Your task to perform on an android device: make emails show in primary in the gmail app Image 0: 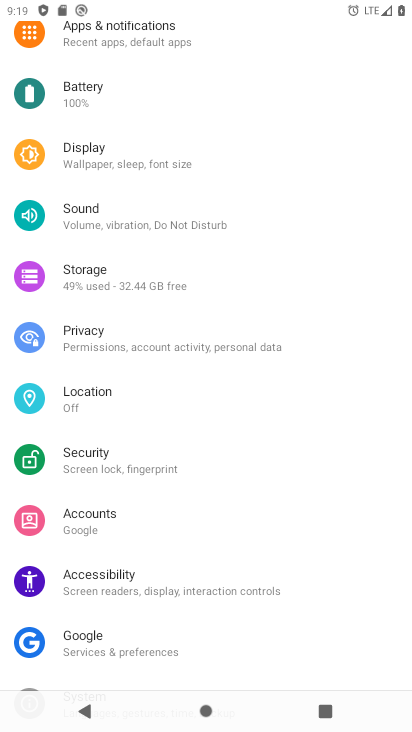
Step 0: press home button
Your task to perform on an android device: make emails show in primary in the gmail app Image 1: 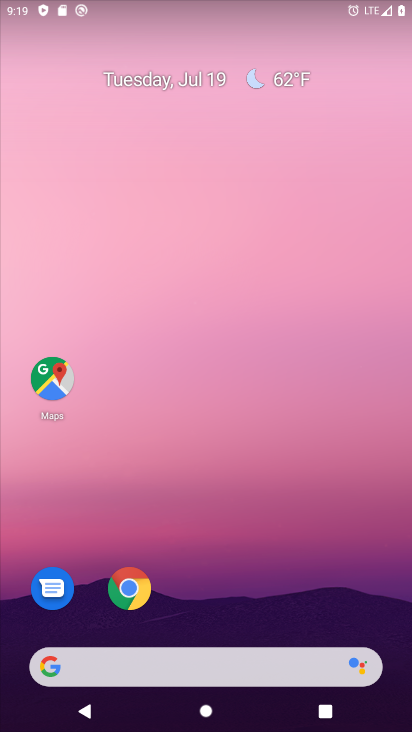
Step 1: drag from (386, 387) to (385, 11)
Your task to perform on an android device: make emails show in primary in the gmail app Image 2: 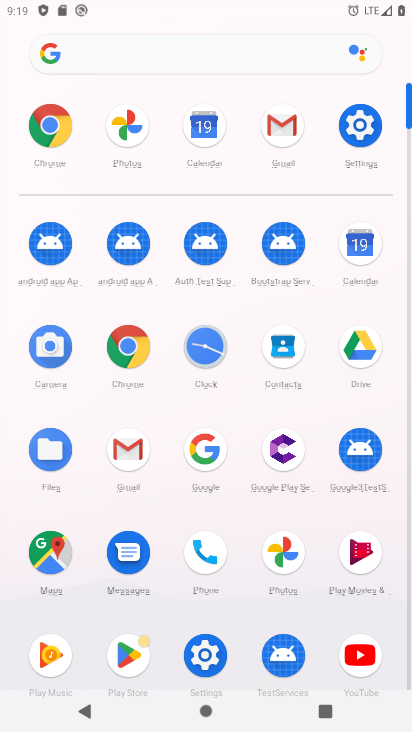
Step 2: click (293, 129)
Your task to perform on an android device: make emails show in primary in the gmail app Image 3: 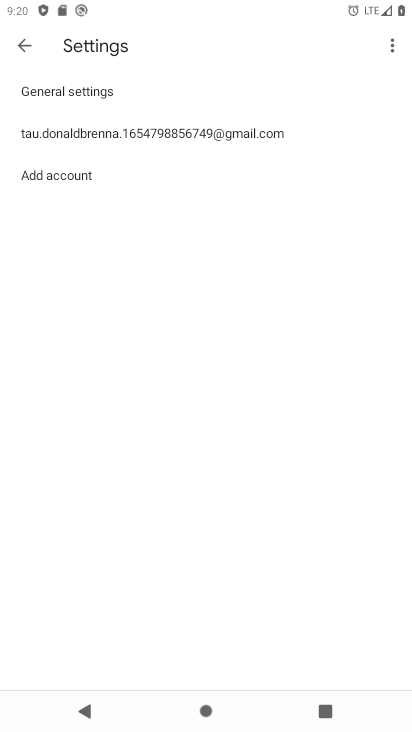
Step 3: click (22, 47)
Your task to perform on an android device: make emails show in primary in the gmail app Image 4: 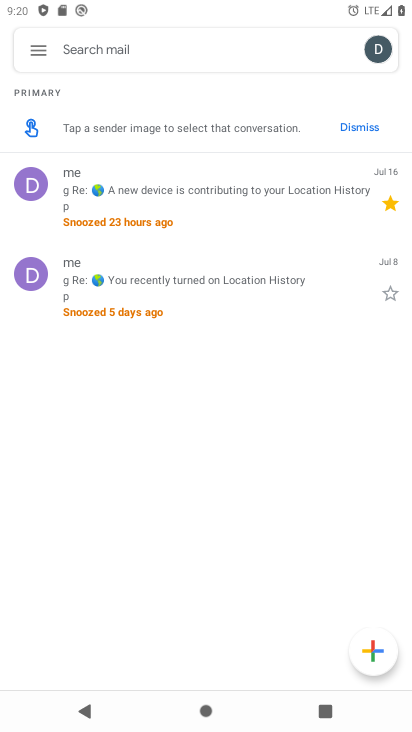
Step 4: click (22, 47)
Your task to perform on an android device: make emails show in primary in the gmail app Image 5: 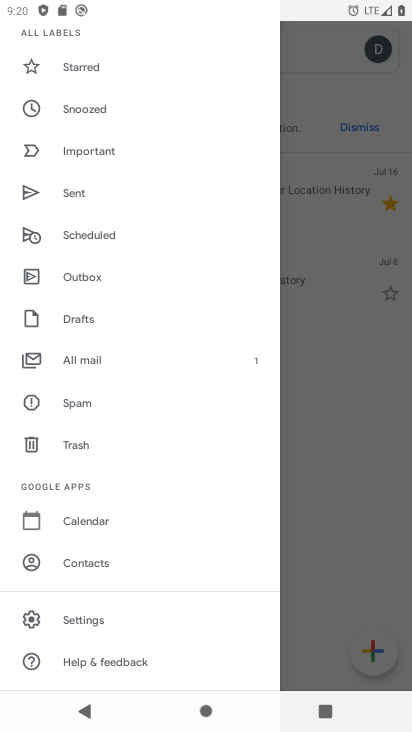
Step 5: click (80, 622)
Your task to perform on an android device: make emails show in primary in the gmail app Image 6: 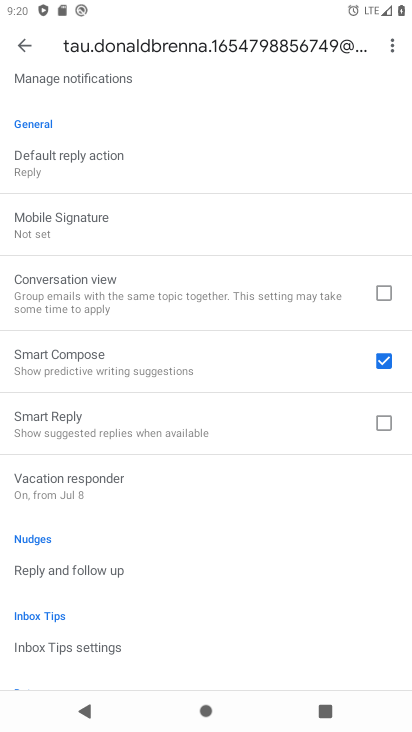
Step 6: drag from (77, 270) to (48, 689)
Your task to perform on an android device: make emails show in primary in the gmail app Image 7: 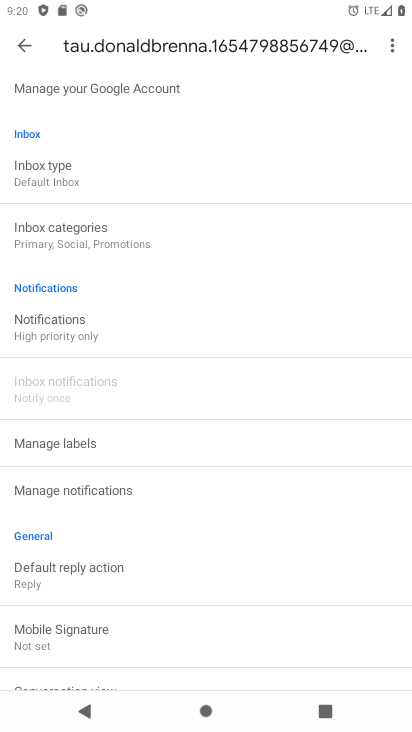
Step 7: drag from (105, 176) to (101, 645)
Your task to perform on an android device: make emails show in primary in the gmail app Image 8: 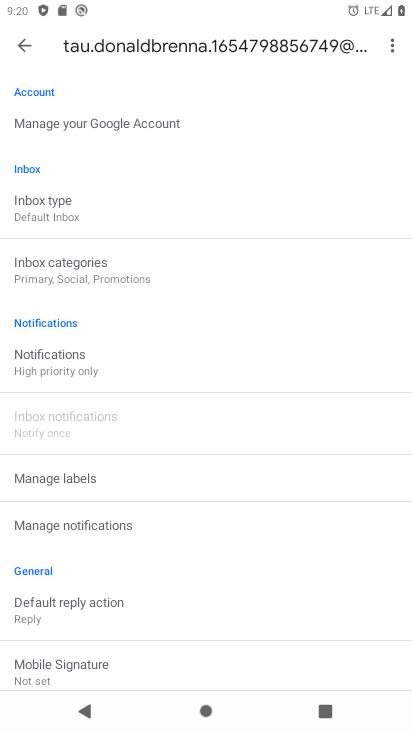
Step 8: click (59, 210)
Your task to perform on an android device: make emails show in primary in the gmail app Image 9: 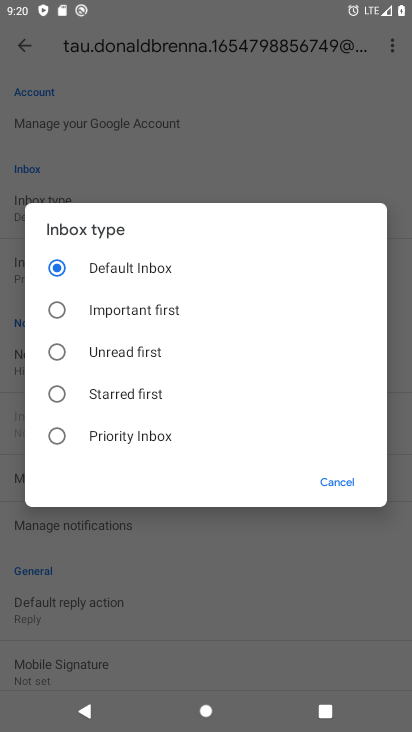
Step 9: click (348, 479)
Your task to perform on an android device: make emails show in primary in the gmail app Image 10: 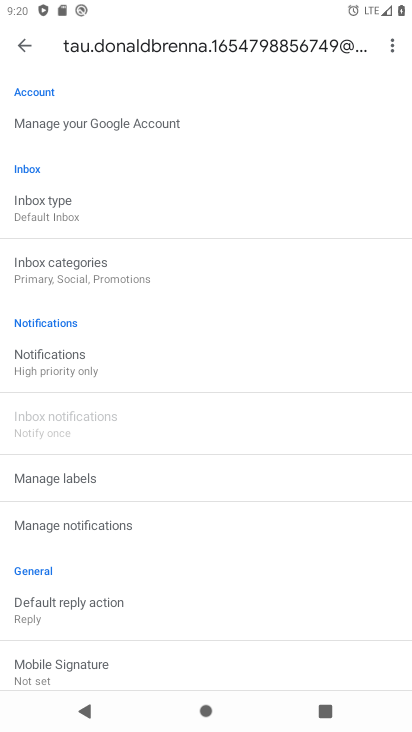
Step 10: task complete